Your task to perform on an android device: Go to Yahoo.com Image 0: 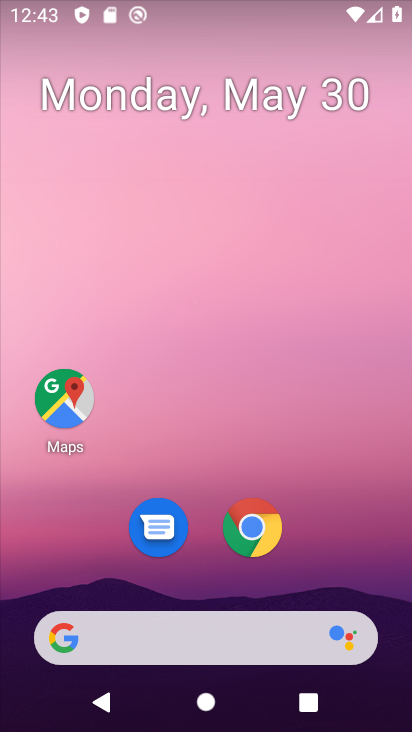
Step 0: drag from (210, 553) to (177, 228)
Your task to perform on an android device: Go to Yahoo.com Image 1: 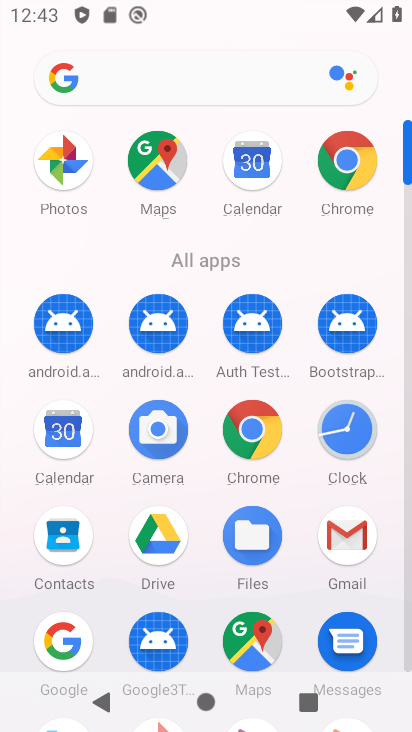
Step 1: click (191, 77)
Your task to perform on an android device: Go to Yahoo.com Image 2: 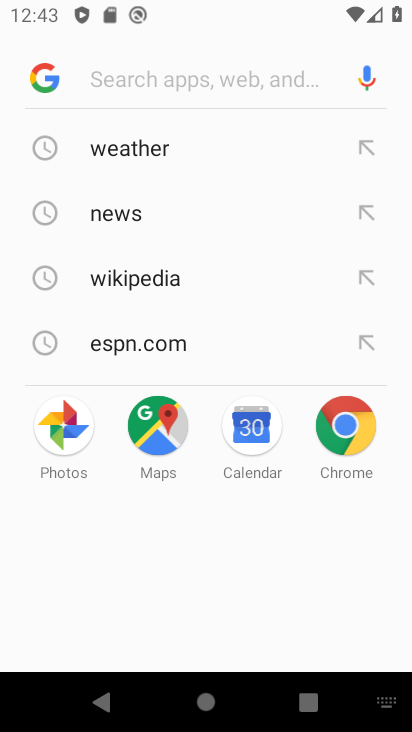
Step 2: type "Yahoo.com"
Your task to perform on an android device: Go to Yahoo.com Image 3: 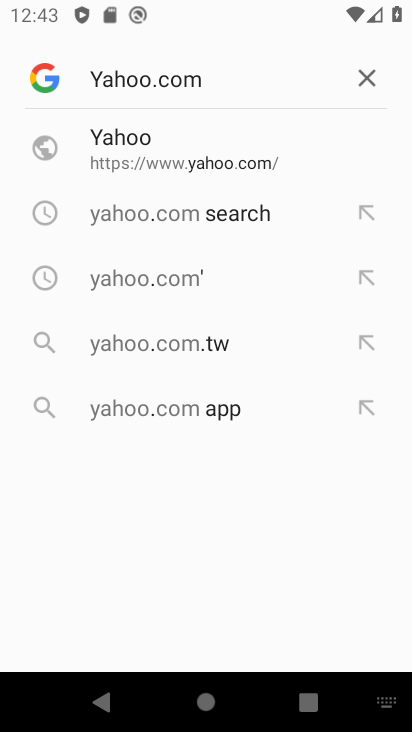
Step 3: type ""
Your task to perform on an android device: Go to Yahoo.com Image 4: 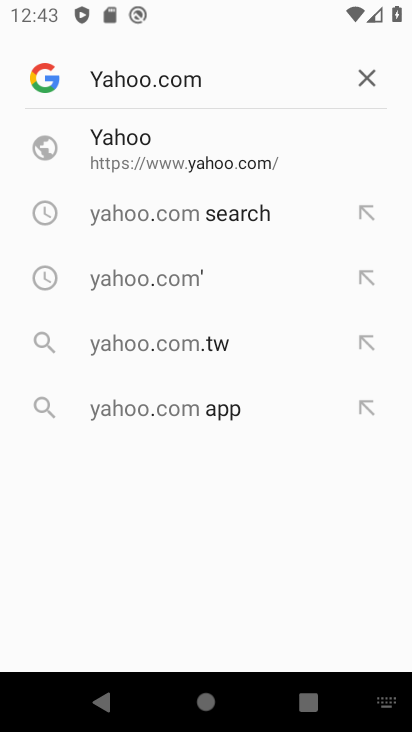
Step 4: click (130, 148)
Your task to perform on an android device: Go to Yahoo.com Image 5: 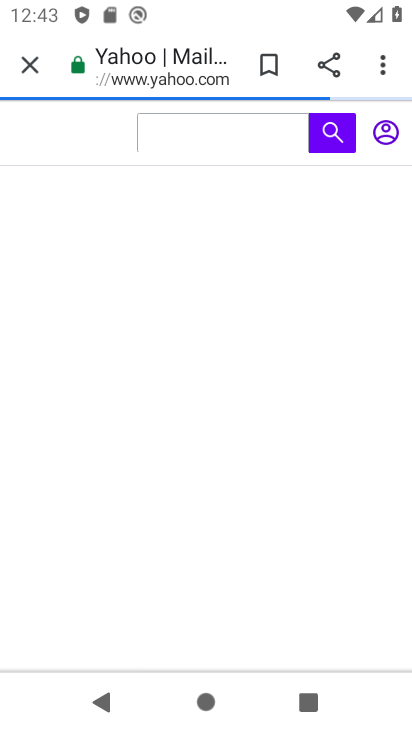
Step 5: task complete